Your task to perform on an android device: Open Google Maps and go to "Timeline" Image 0: 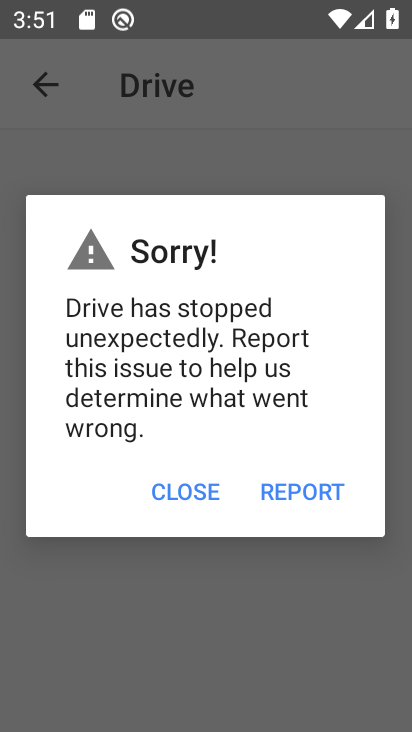
Step 0: press home button
Your task to perform on an android device: Open Google Maps and go to "Timeline" Image 1: 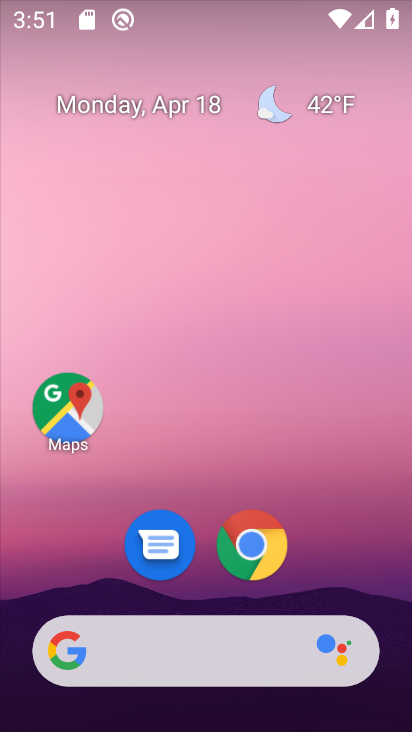
Step 1: click (49, 420)
Your task to perform on an android device: Open Google Maps and go to "Timeline" Image 2: 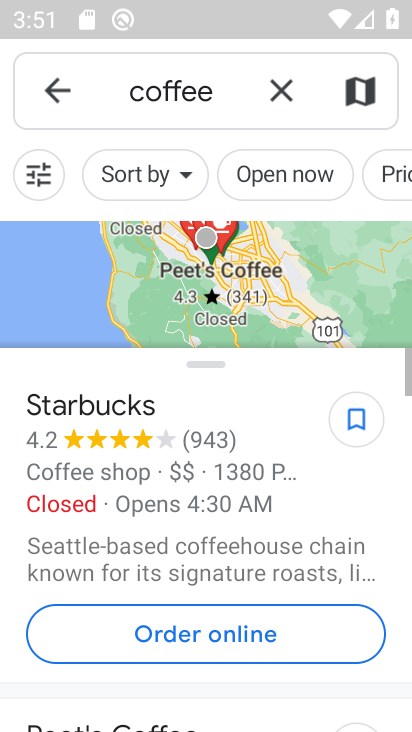
Step 2: press back button
Your task to perform on an android device: Open Google Maps and go to "Timeline" Image 3: 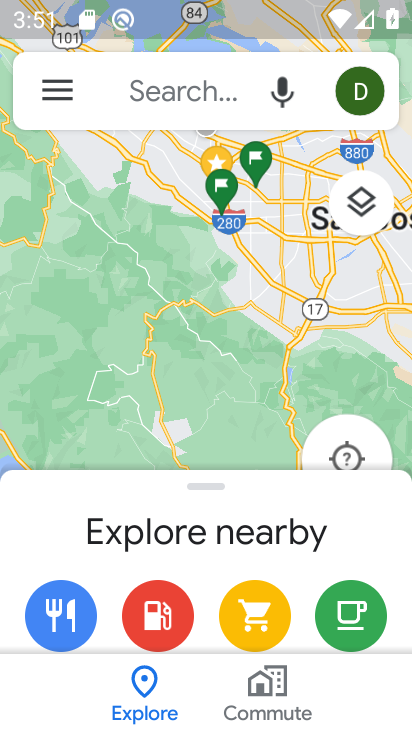
Step 3: click (50, 88)
Your task to perform on an android device: Open Google Maps and go to "Timeline" Image 4: 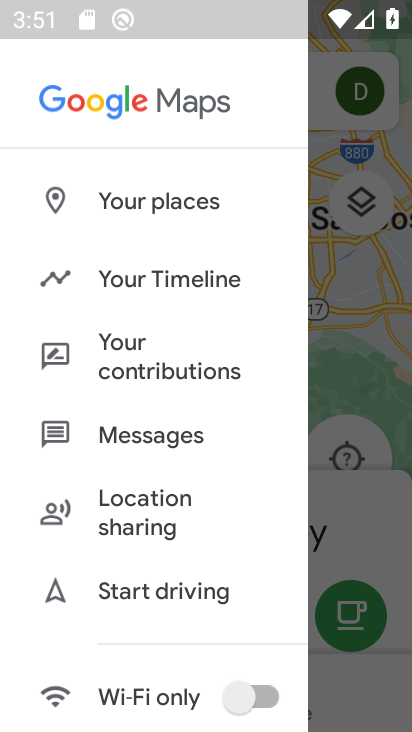
Step 4: click (153, 279)
Your task to perform on an android device: Open Google Maps and go to "Timeline" Image 5: 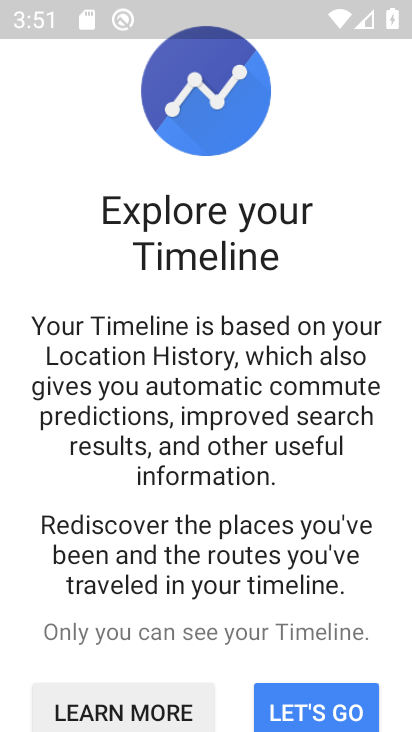
Step 5: task complete